Your task to perform on an android device: Open calendar and show me the third week of next month Image 0: 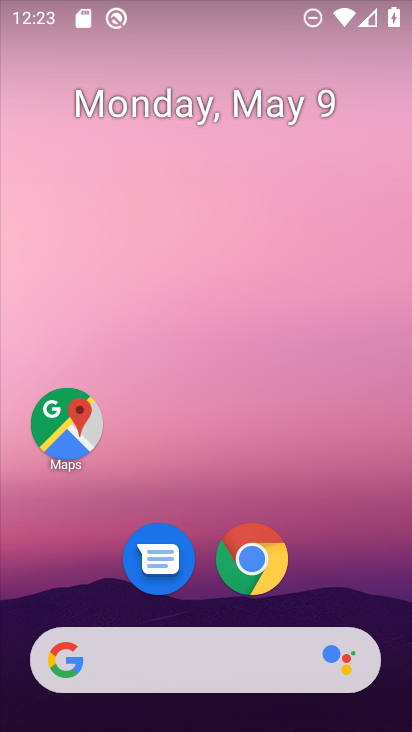
Step 0: drag from (334, 460) to (338, 424)
Your task to perform on an android device: Open calendar and show me the third week of next month Image 1: 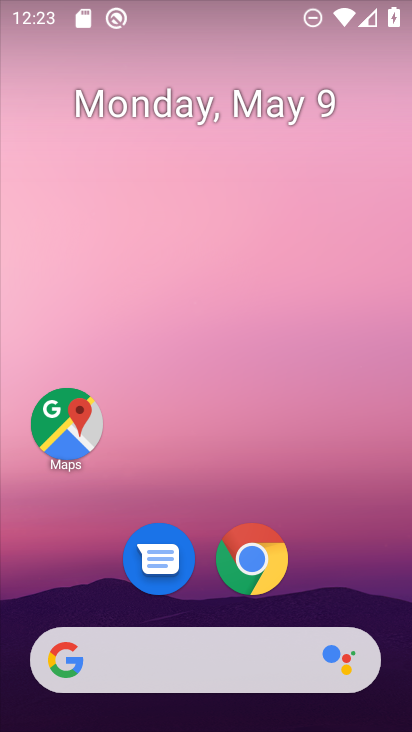
Step 1: drag from (334, 600) to (316, 13)
Your task to perform on an android device: Open calendar and show me the third week of next month Image 2: 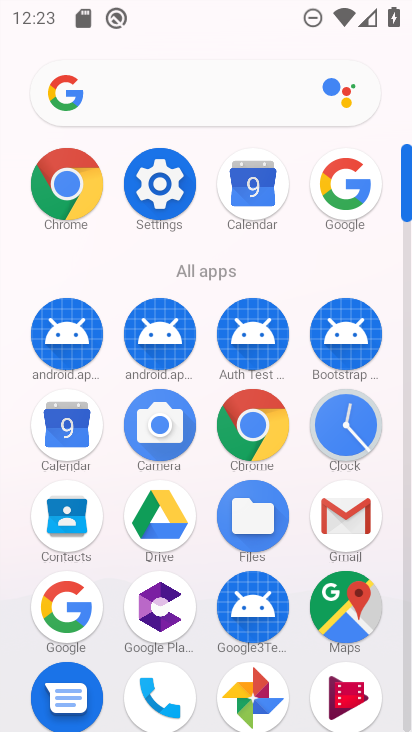
Step 2: click (77, 421)
Your task to perform on an android device: Open calendar and show me the third week of next month Image 3: 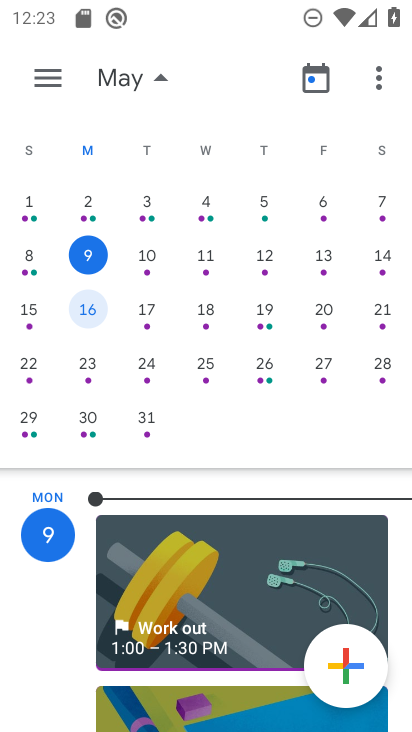
Step 3: drag from (409, 367) to (9, 403)
Your task to perform on an android device: Open calendar and show me the third week of next month Image 4: 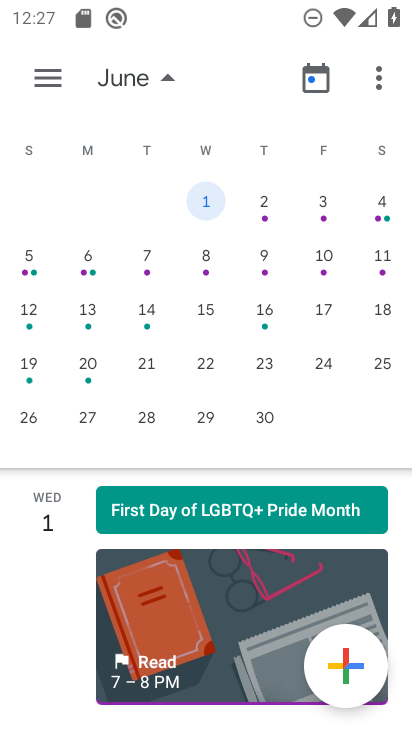
Step 4: click (200, 308)
Your task to perform on an android device: Open calendar and show me the third week of next month Image 5: 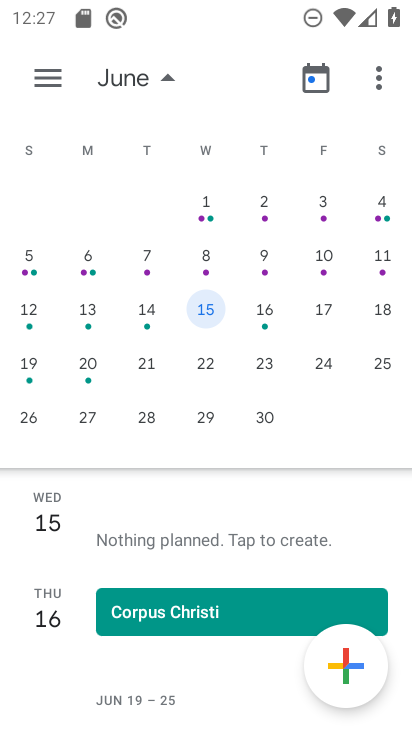
Step 5: task complete